Your task to perform on an android device: turn on data saver in the chrome app Image 0: 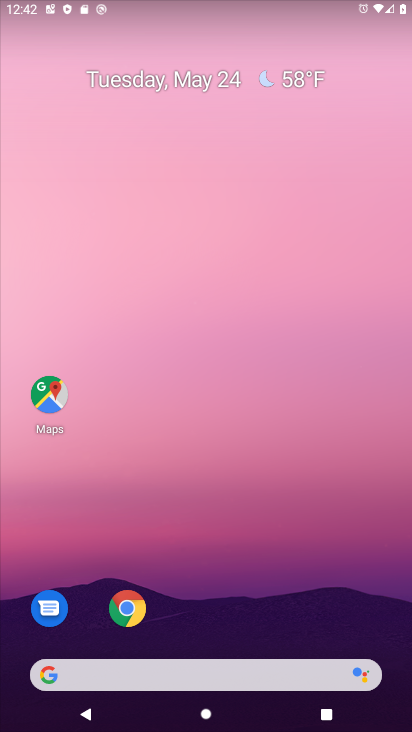
Step 0: drag from (272, 689) to (272, 122)
Your task to perform on an android device: turn on data saver in the chrome app Image 1: 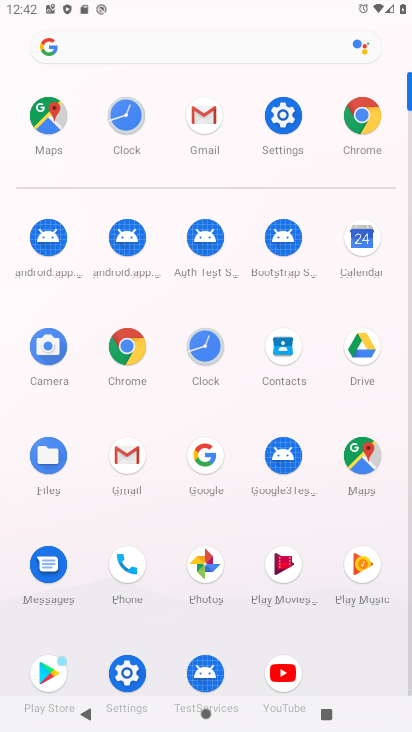
Step 1: click (351, 109)
Your task to perform on an android device: turn on data saver in the chrome app Image 2: 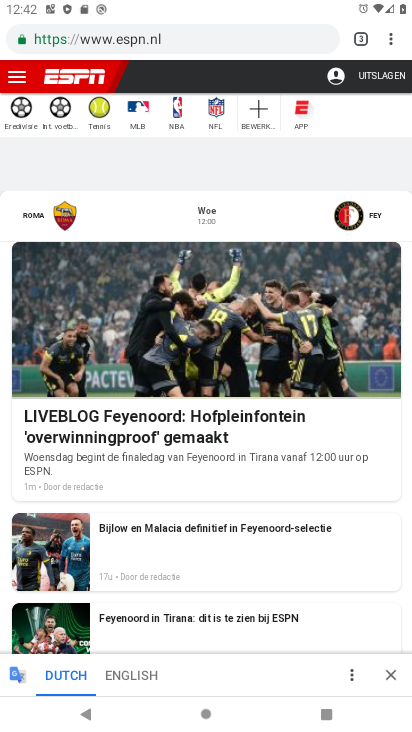
Step 2: click (394, 45)
Your task to perform on an android device: turn on data saver in the chrome app Image 3: 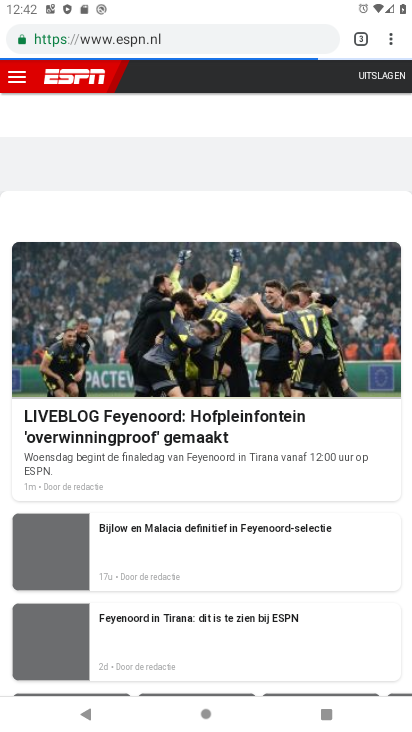
Step 3: click (377, 46)
Your task to perform on an android device: turn on data saver in the chrome app Image 4: 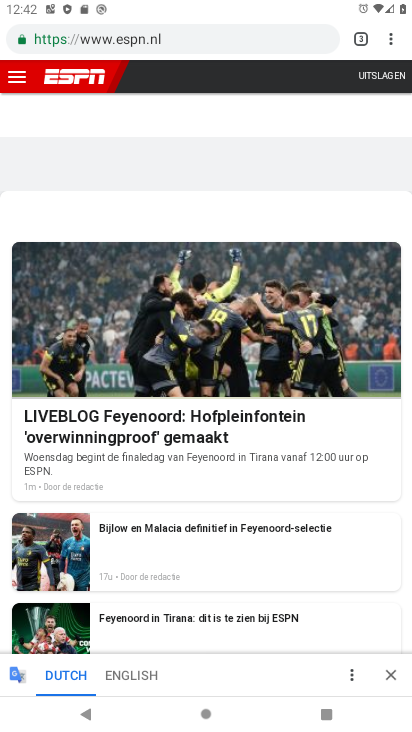
Step 4: click (389, 50)
Your task to perform on an android device: turn on data saver in the chrome app Image 5: 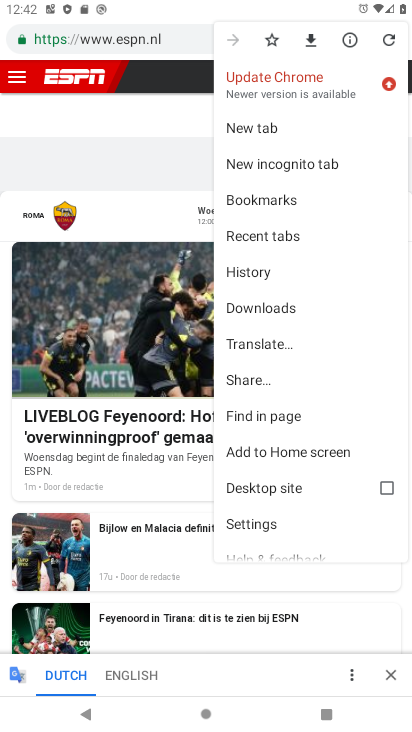
Step 5: click (261, 530)
Your task to perform on an android device: turn on data saver in the chrome app Image 6: 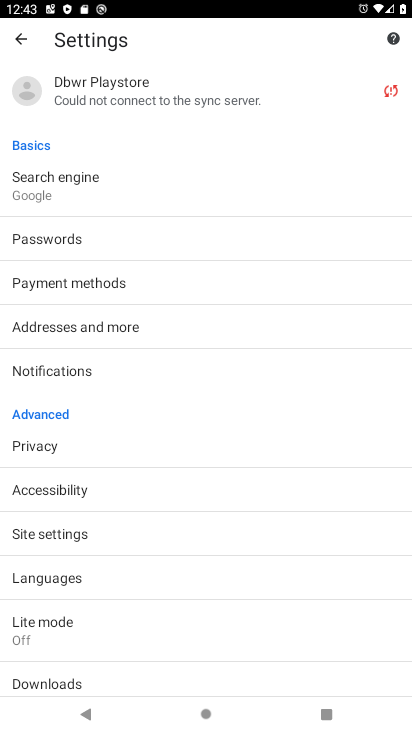
Step 6: click (101, 620)
Your task to perform on an android device: turn on data saver in the chrome app Image 7: 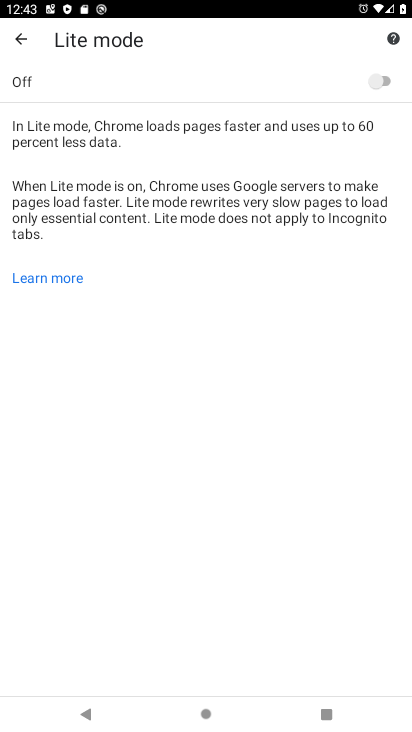
Step 7: click (388, 73)
Your task to perform on an android device: turn on data saver in the chrome app Image 8: 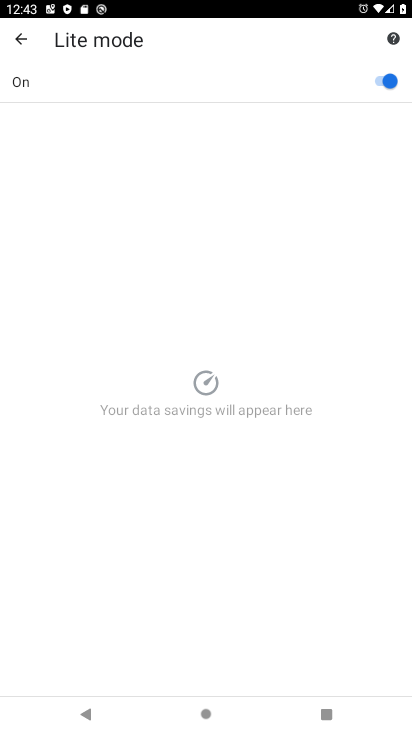
Step 8: task complete